Your task to perform on an android device: clear all cookies in the chrome app Image 0: 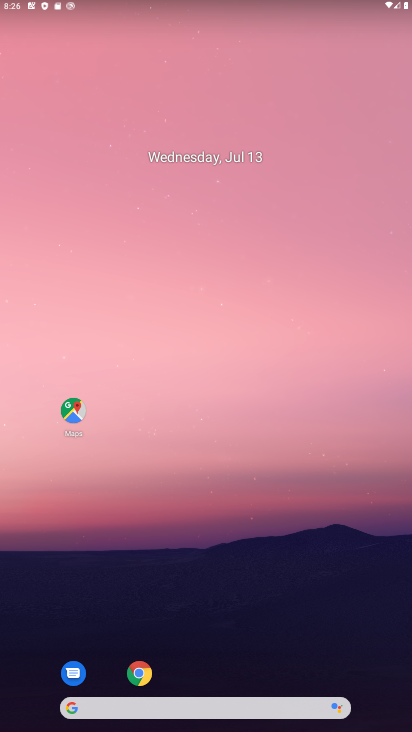
Step 0: drag from (298, 593) to (219, 176)
Your task to perform on an android device: clear all cookies in the chrome app Image 1: 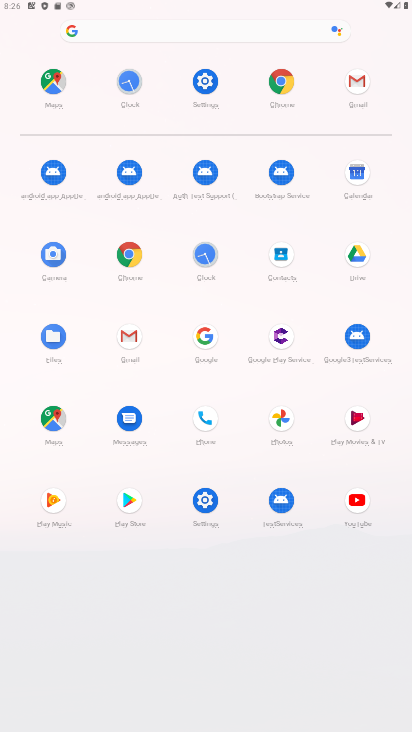
Step 1: click (129, 255)
Your task to perform on an android device: clear all cookies in the chrome app Image 2: 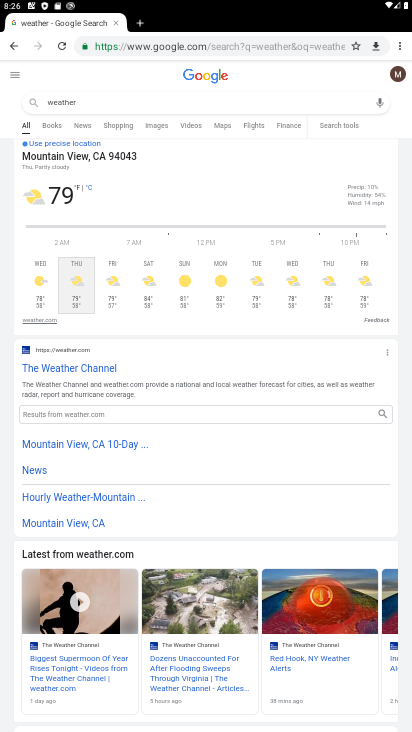
Step 2: click (401, 45)
Your task to perform on an android device: clear all cookies in the chrome app Image 3: 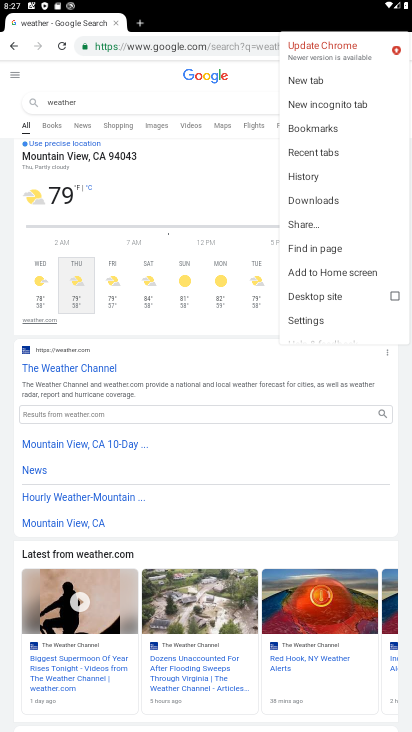
Step 3: click (305, 172)
Your task to perform on an android device: clear all cookies in the chrome app Image 4: 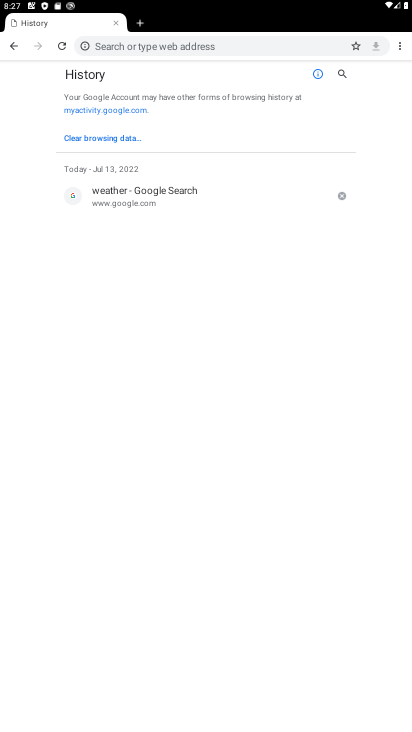
Step 4: click (117, 137)
Your task to perform on an android device: clear all cookies in the chrome app Image 5: 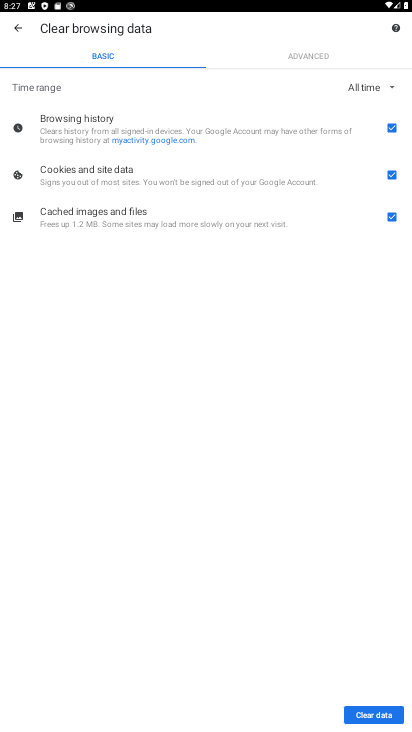
Step 5: click (385, 713)
Your task to perform on an android device: clear all cookies in the chrome app Image 6: 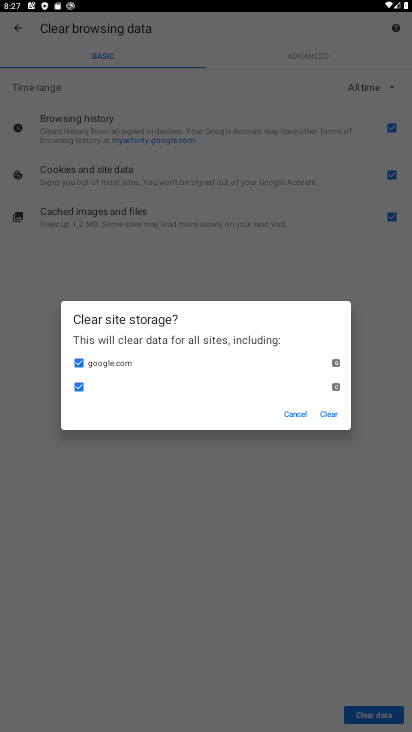
Step 6: click (328, 412)
Your task to perform on an android device: clear all cookies in the chrome app Image 7: 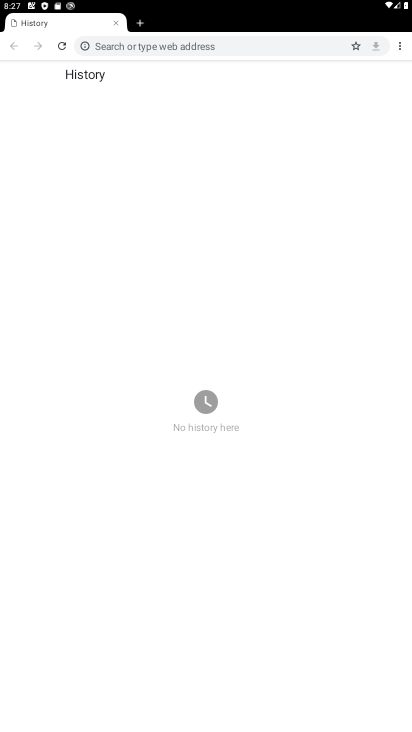
Step 7: task complete